Your task to perform on an android device: find photos in the google photos app Image 0: 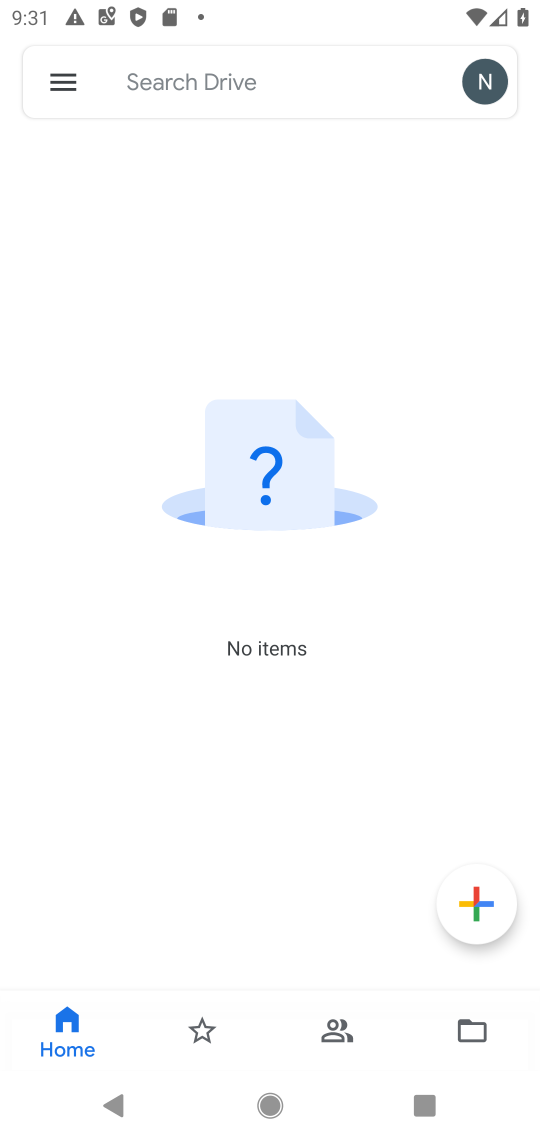
Step 0: press home button
Your task to perform on an android device: find photos in the google photos app Image 1: 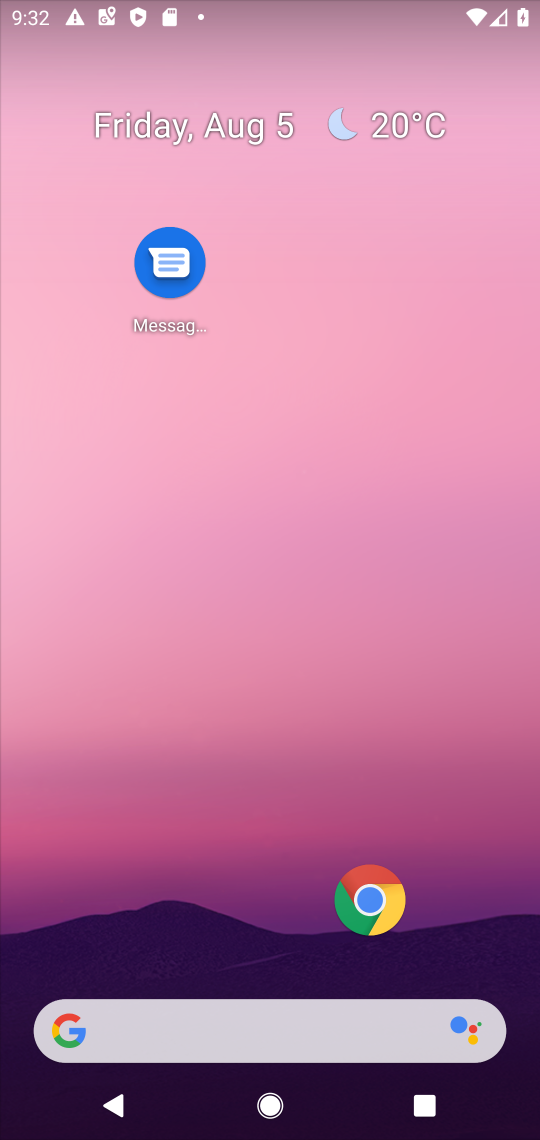
Step 1: drag from (108, 801) to (107, 102)
Your task to perform on an android device: find photos in the google photos app Image 2: 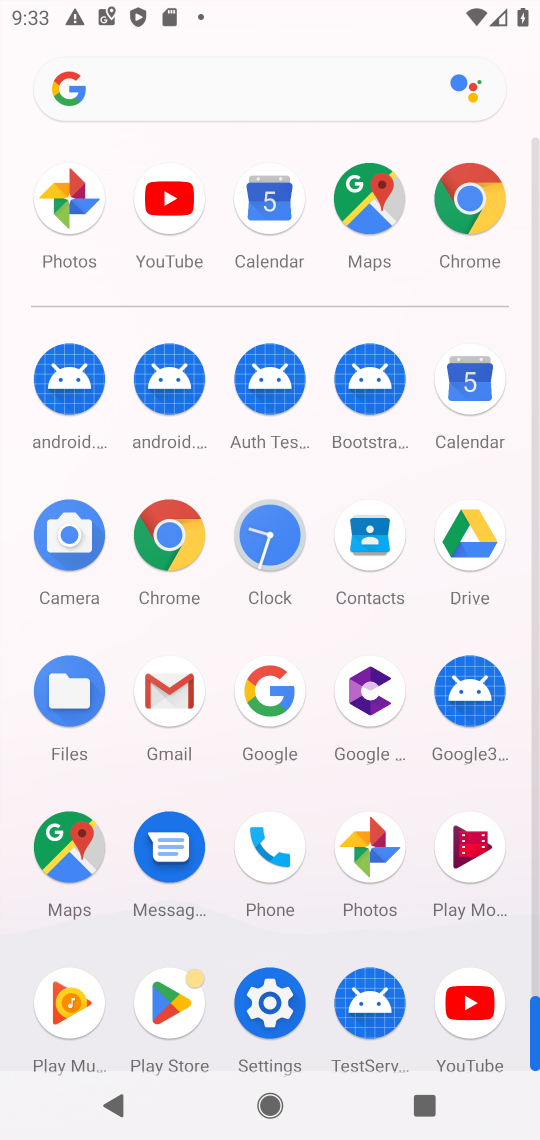
Step 2: click (360, 873)
Your task to perform on an android device: find photos in the google photos app Image 3: 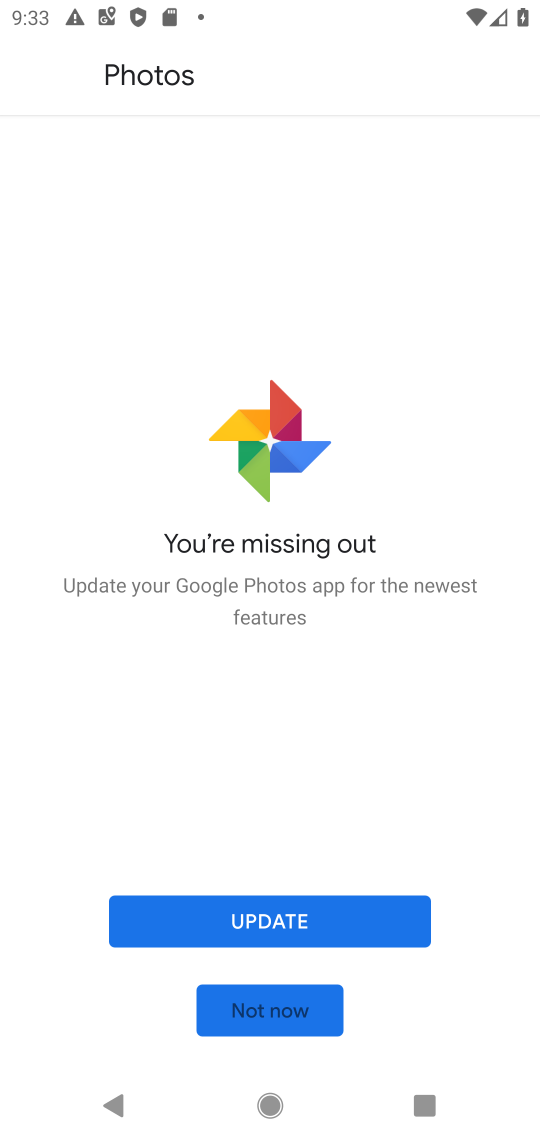
Step 3: click (308, 923)
Your task to perform on an android device: find photos in the google photos app Image 4: 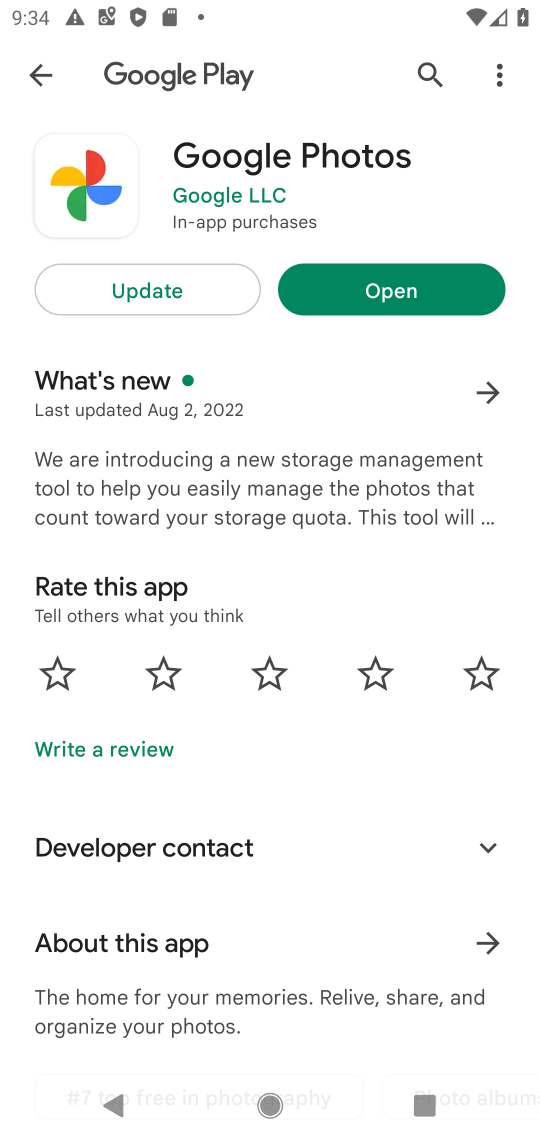
Step 4: click (112, 299)
Your task to perform on an android device: find photos in the google photos app Image 5: 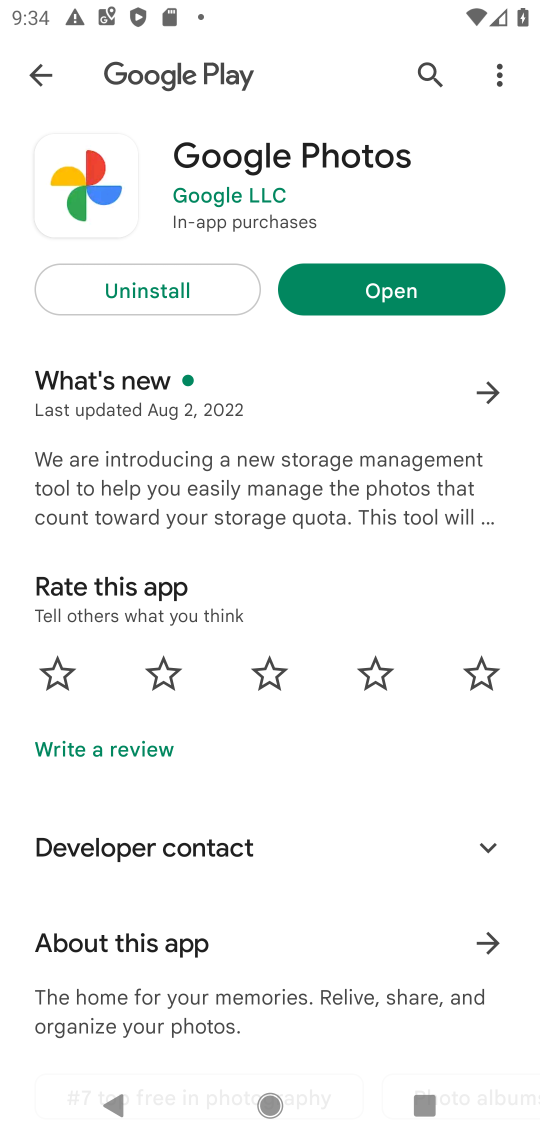
Step 5: click (470, 265)
Your task to perform on an android device: find photos in the google photos app Image 6: 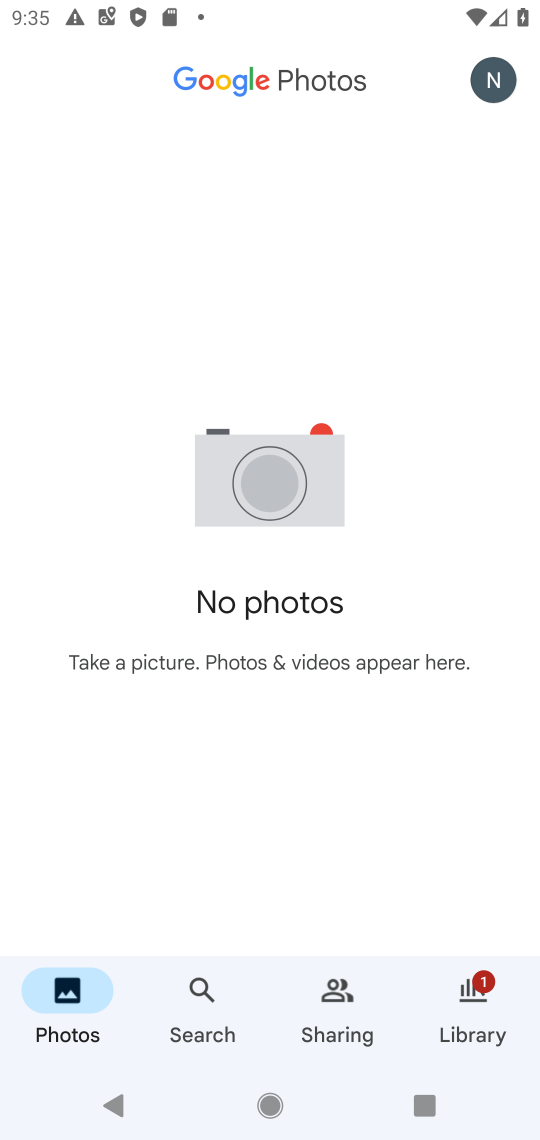
Step 6: task complete